Your task to perform on an android device: Open Yahoo.com Image 0: 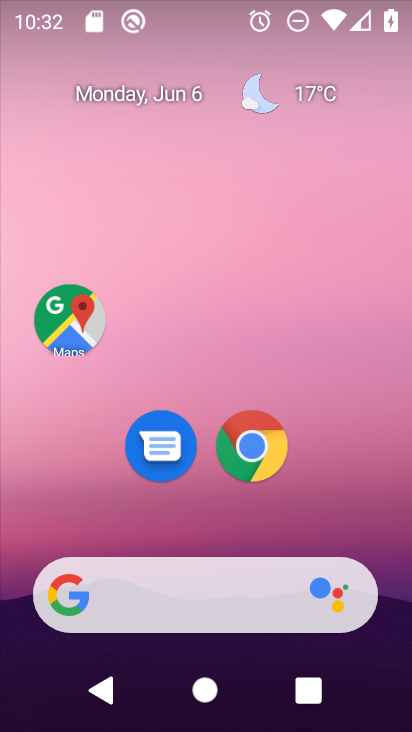
Step 0: click (253, 445)
Your task to perform on an android device: Open Yahoo.com Image 1: 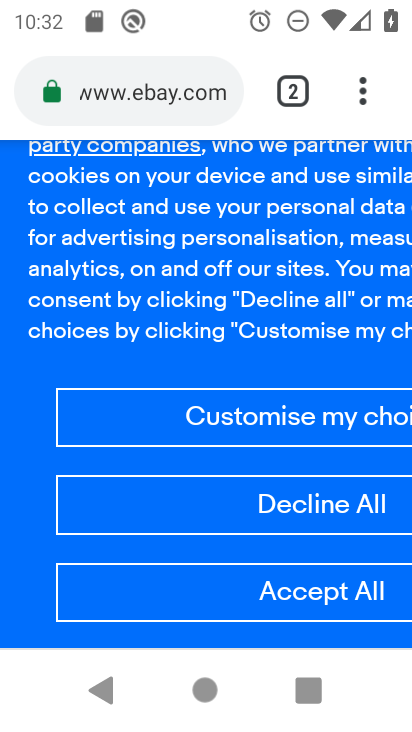
Step 1: click (299, 83)
Your task to perform on an android device: Open Yahoo.com Image 2: 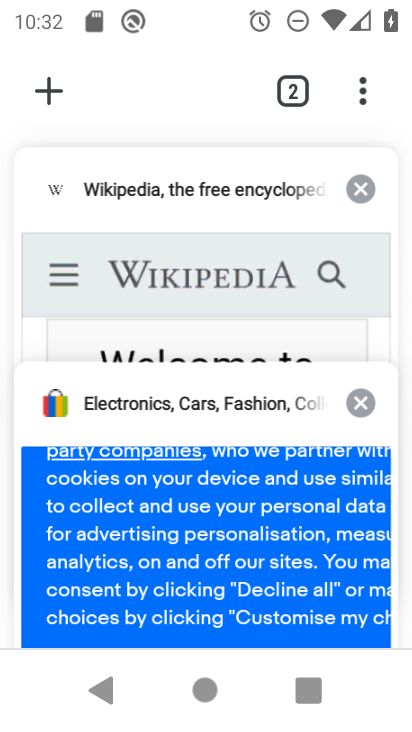
Step 2: click (48, 95)
Your task to perform on an android device: Open Yahoo.com Image 3: 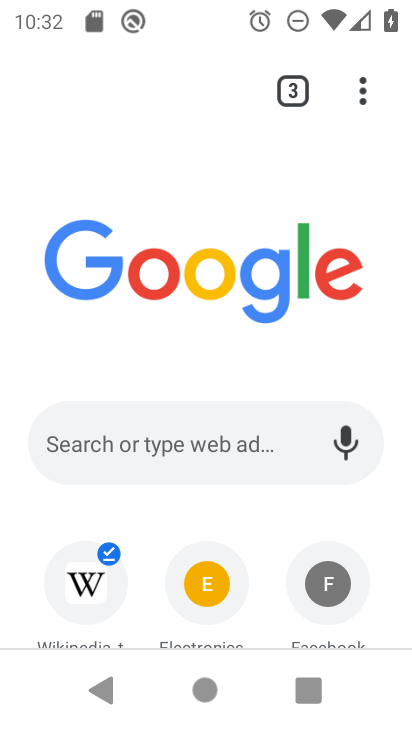
Step 3: drag from (134, 586) to (216, 112)
Your task to perform on an android device: Open Yahoo.com Image 4: 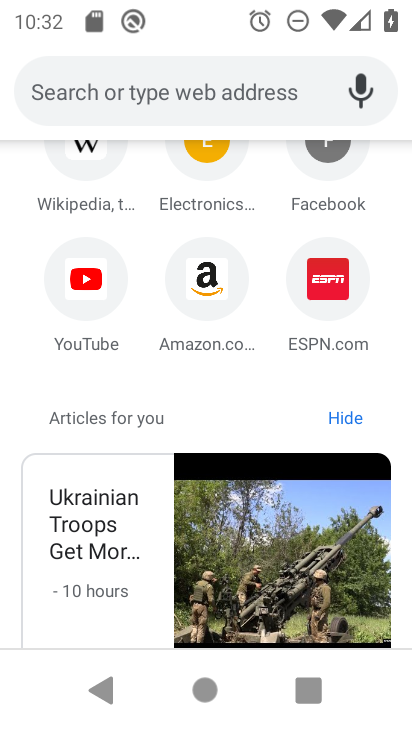
Step 4: click (197, 101)
Your task to perform on an android device: Open Yahoo.com Image 5: 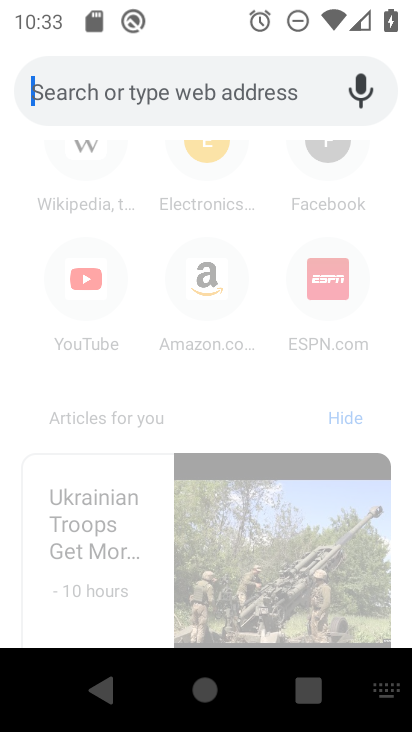
Step 5: type "yahoo"
Your task to perform on an android device: Open Yahoo.com Image 6: 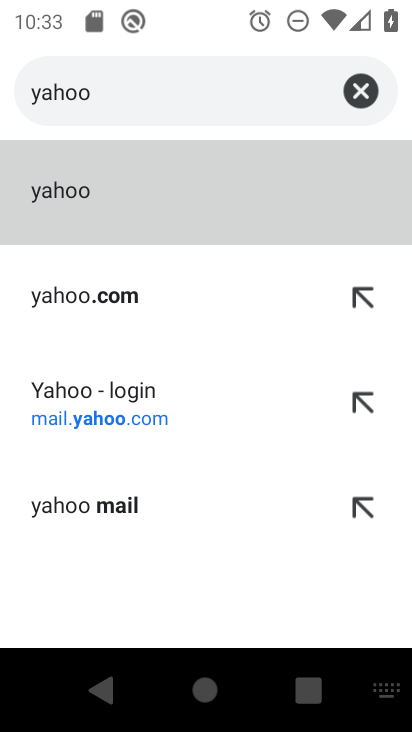
Step 6: click (143, 418)
Your task to perform on an android device: Open Yahoo.com Image 7: 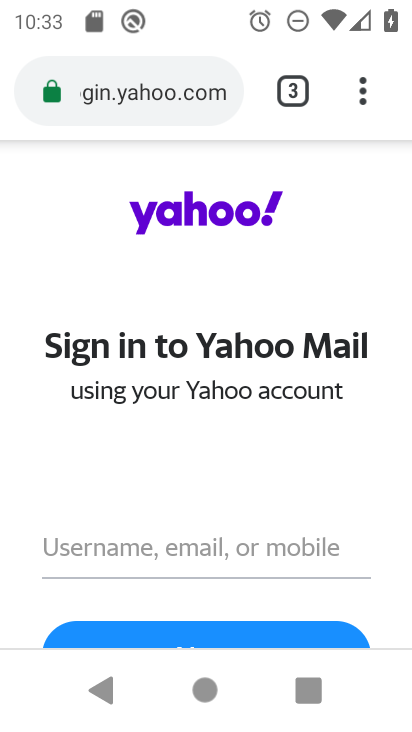
Step 7: task complete